Your task to perform on an android device: uninstall "Microsoft Excel" Image 0: 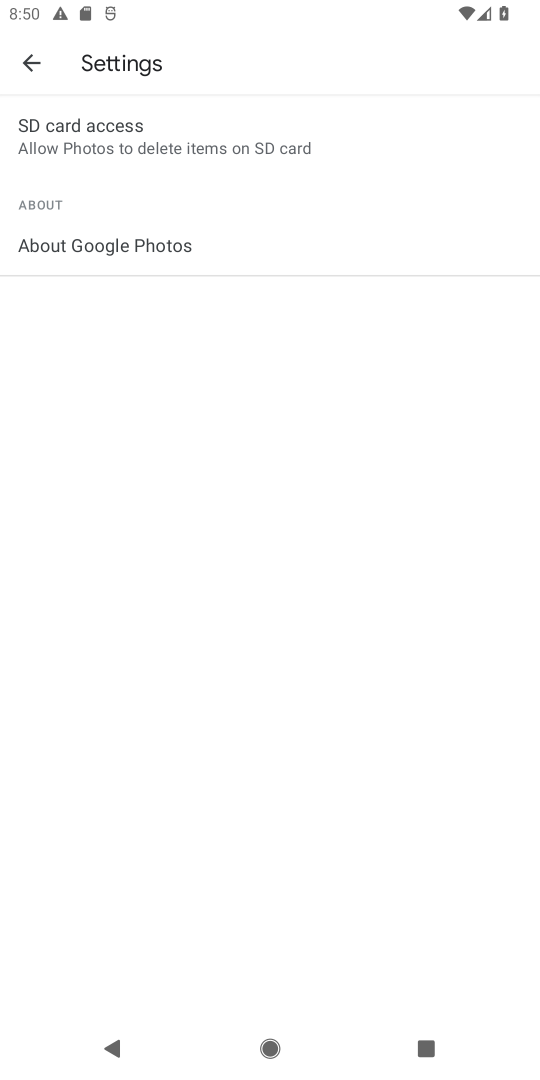
Step 0: press home button
Your task to perform on an android device: uninstall "Microsoft Excel" Image 1: 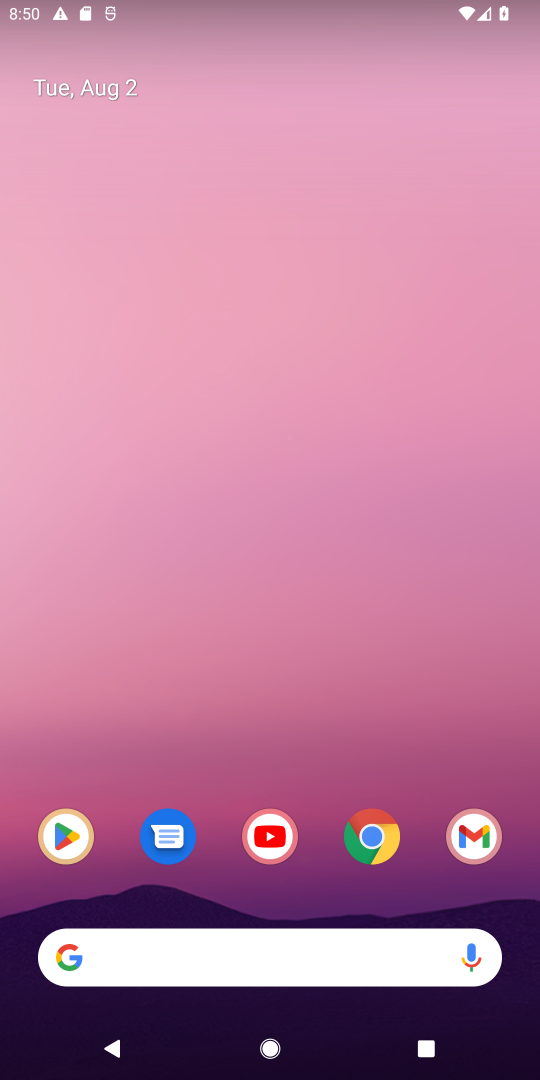
Step 1: drag from (402, 769) to (154, 5)
Your task to perform on an android device: uninstall "Microsoft Excel" Image 2: 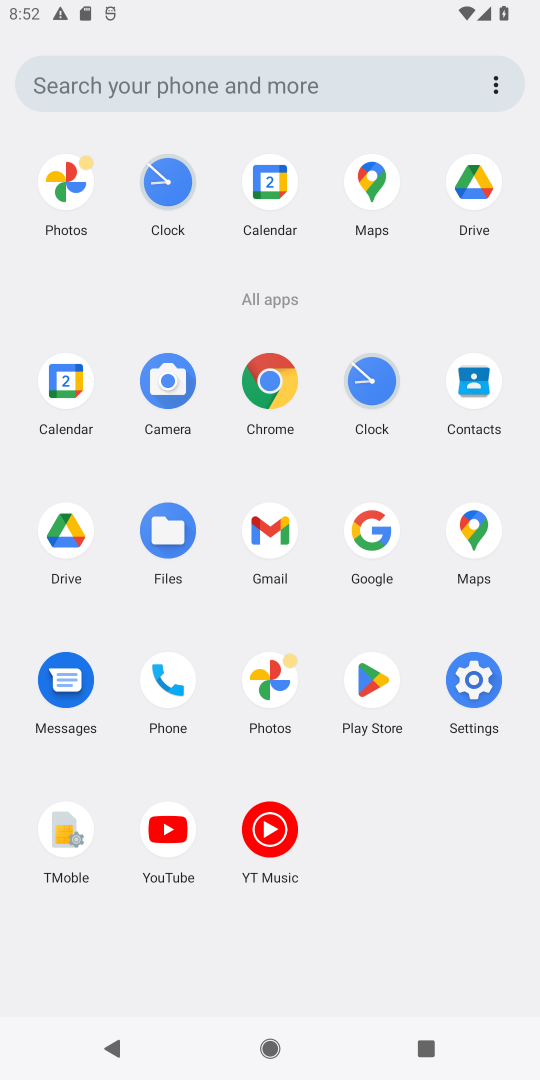
Step 2: click (381, 689)
Your task to perform on an android device: uninstall "Microsoft Excel" Image 3: 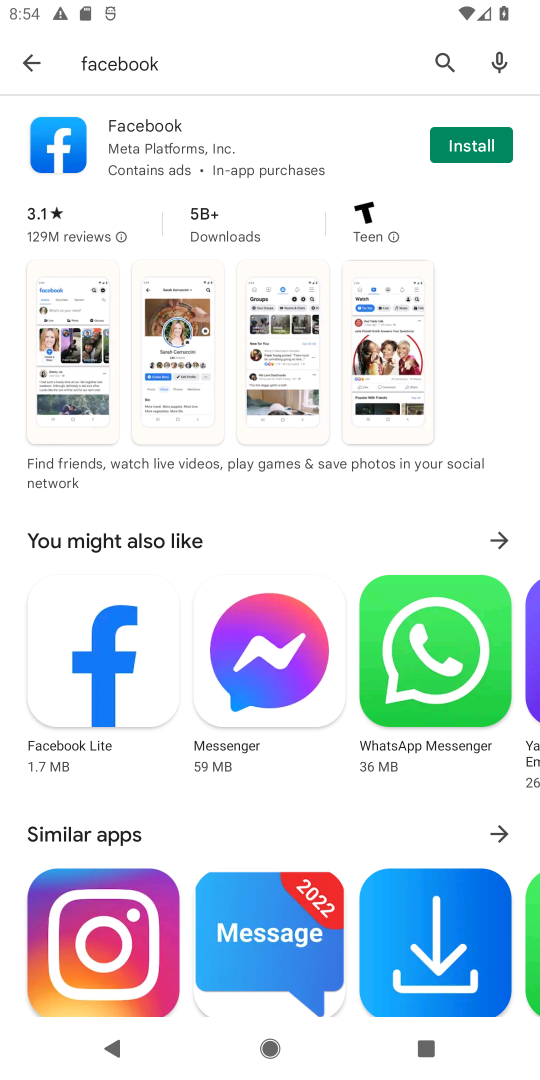
Step 3: press back button
Your task to perform on an android device: uninstall "Microsoft Excel" Image 4: 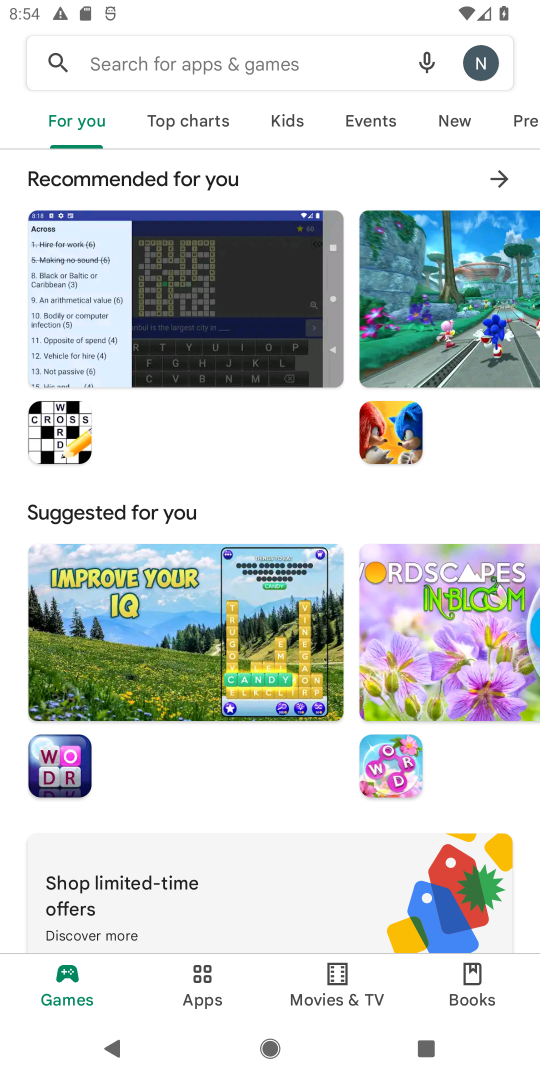
Step 4: type "Microsoft Excel"
Your task to perform on an android device: uninstall "Microsoft Excel" Image 5: 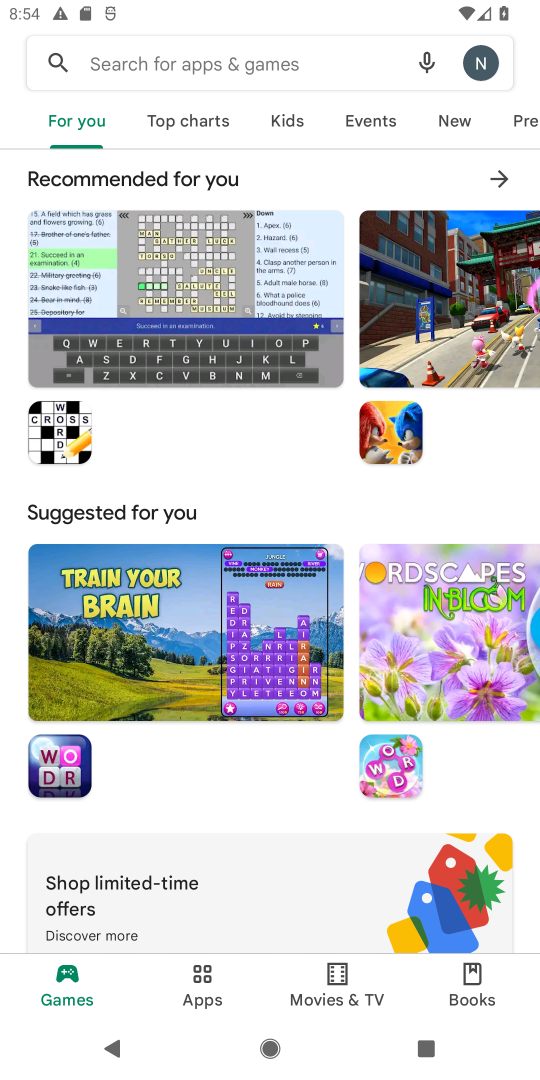
Step 5: click (198, 67)
Your task to perform on an android device: uninstall "Microsoft Excel" Image 6: 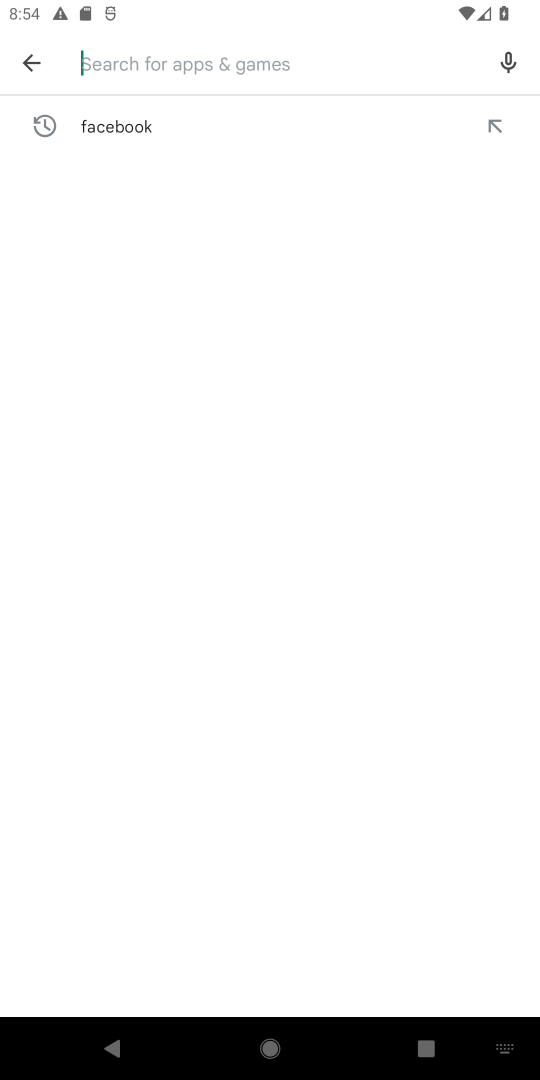
Step 6: type "Microsoft Excel"
Your task to perform on an android device: uninstall "Microsoft Excel" Image 7: 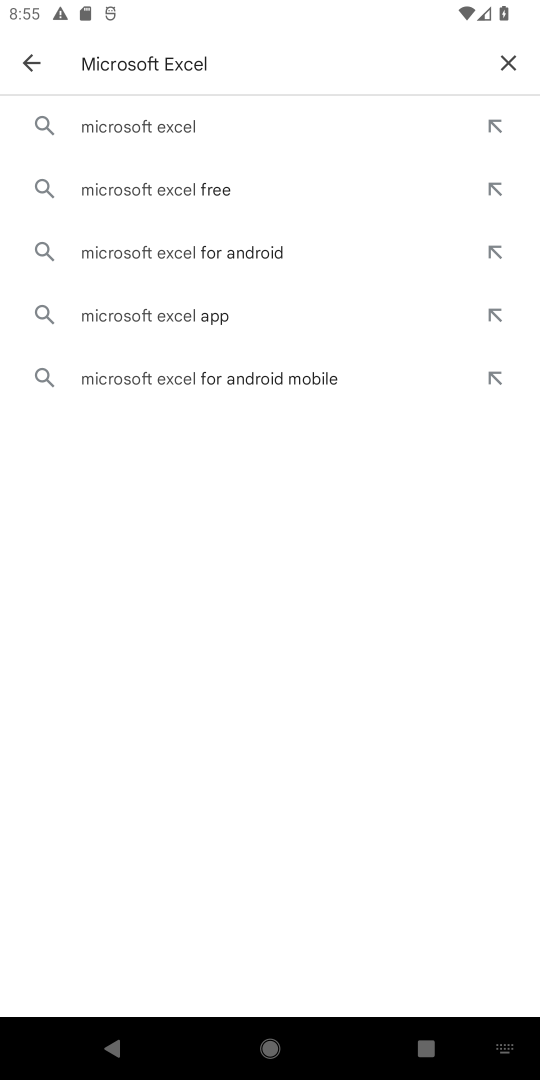
Step 7: click (205, 102)
Your task to perform on an android device: uninstall "Microsoft Excel" Image 8: 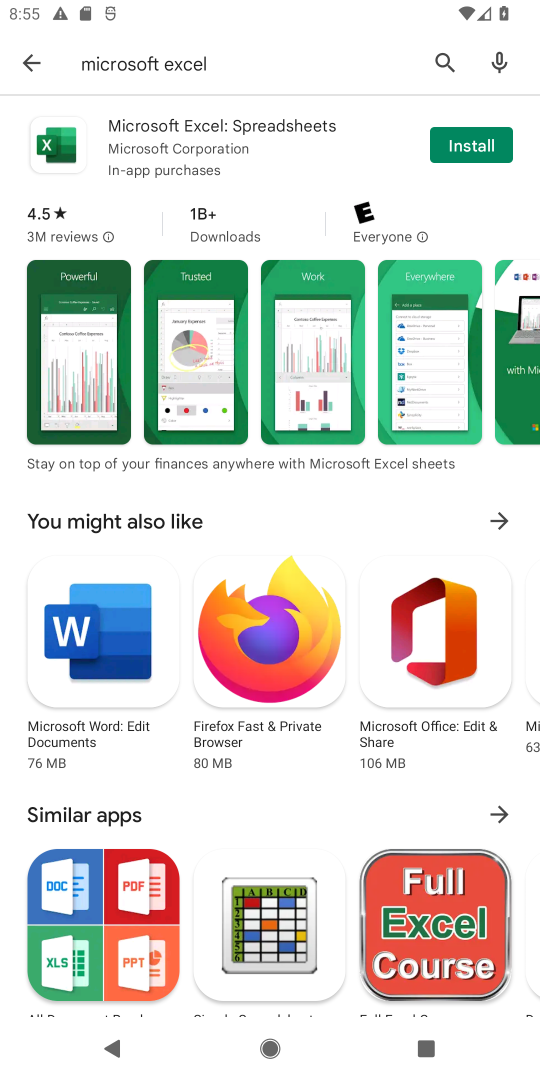
Step 8: task complete